Your task to perform on an android device: change alarm snooze length Image 0: 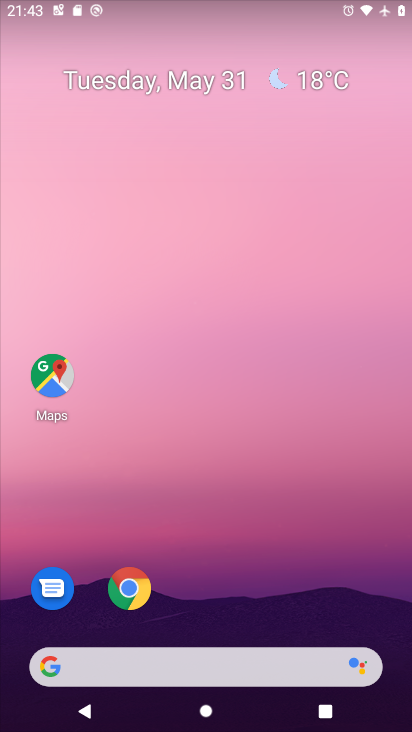
Step 0: press home button
Your task to perform on an android device: change alarm snooze length Image 1: 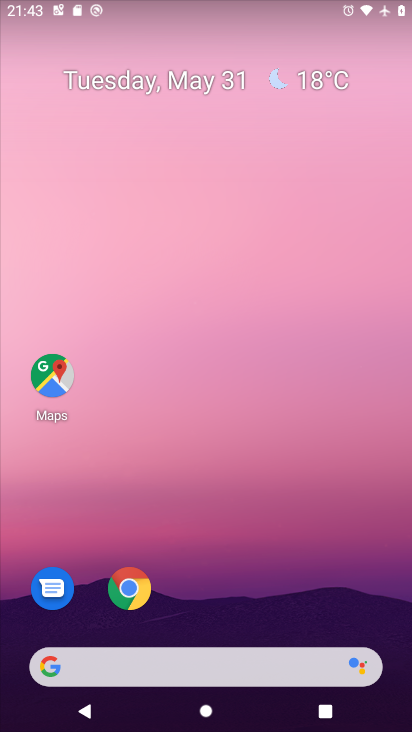
Step 1: drag from (171, 666) to (268, 119)
Your task to perform on an android device: change alarm snooze length Image 2: 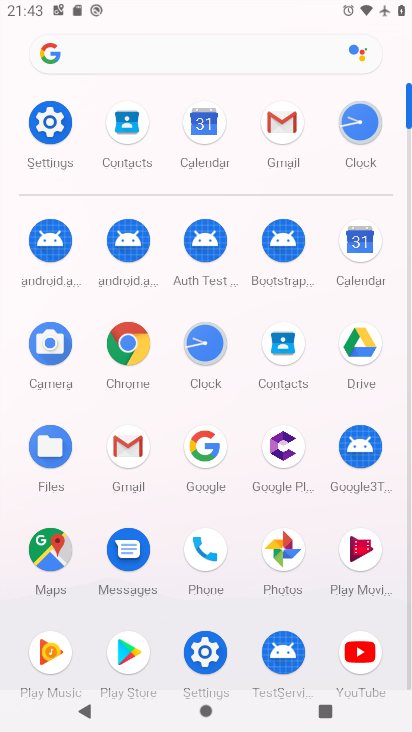
Step 2: click (206, 353)
Your task to perform on an android device: change alarm snooze length Image 3: 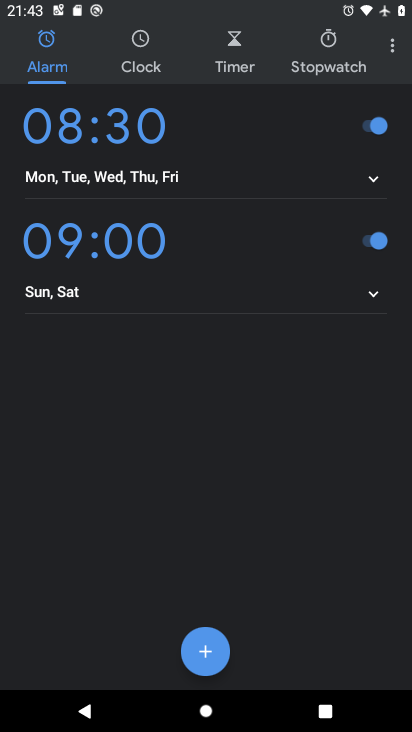
Step 3: click (390, 45)
Your task to perform on an android device: change alarm snooze length Image 4: 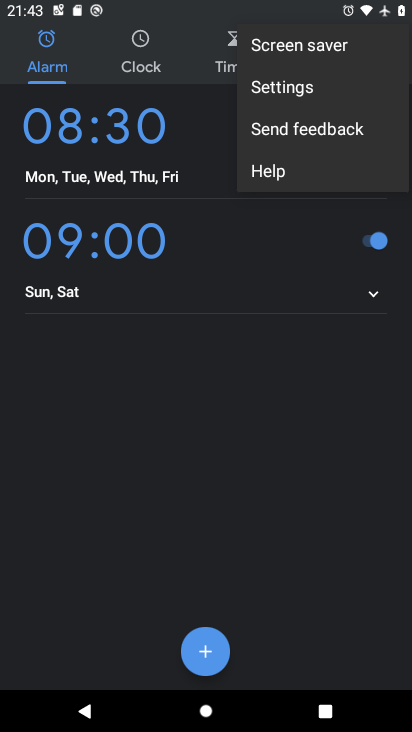
Step 4: click (286, 88)
Your task to perform on an android device: change alarm snooze length Image 5: 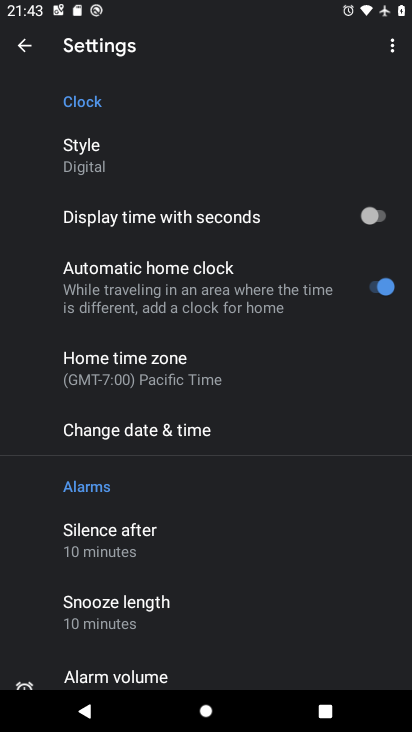
Step 5: drag from (226, 592) to (270, 304)
Your task to perform on an android device: change alarm snooze length Image 6: 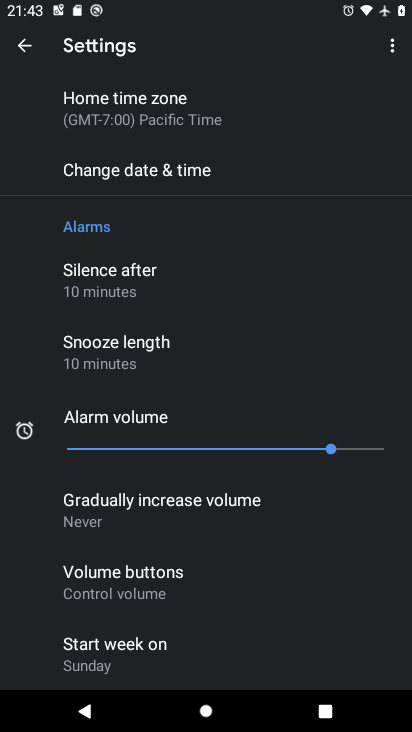
Step 6: click (102, 362)
Your task to perform on an android device: change alarm snooze length Image 7: 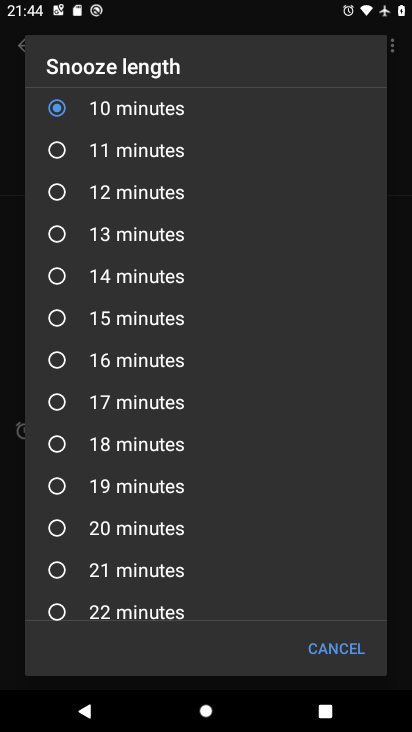
Step 7: click (54, 320)
Your task to perform on an android device: change alarm snooze length Image 8: 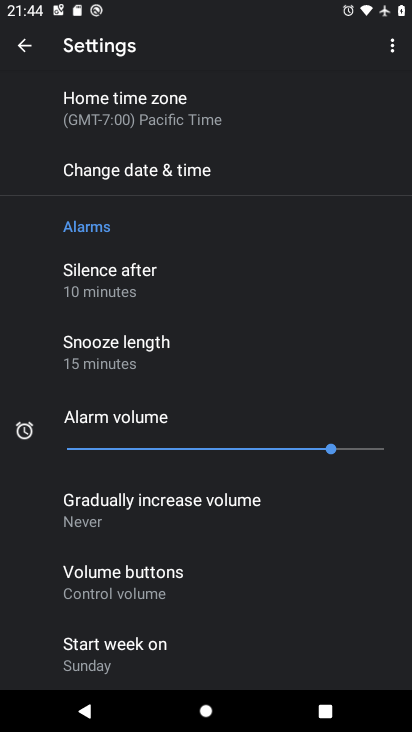
Step 8: task complete